Your task to perform on an android device: turn off data saver in the chrome app Image 0: 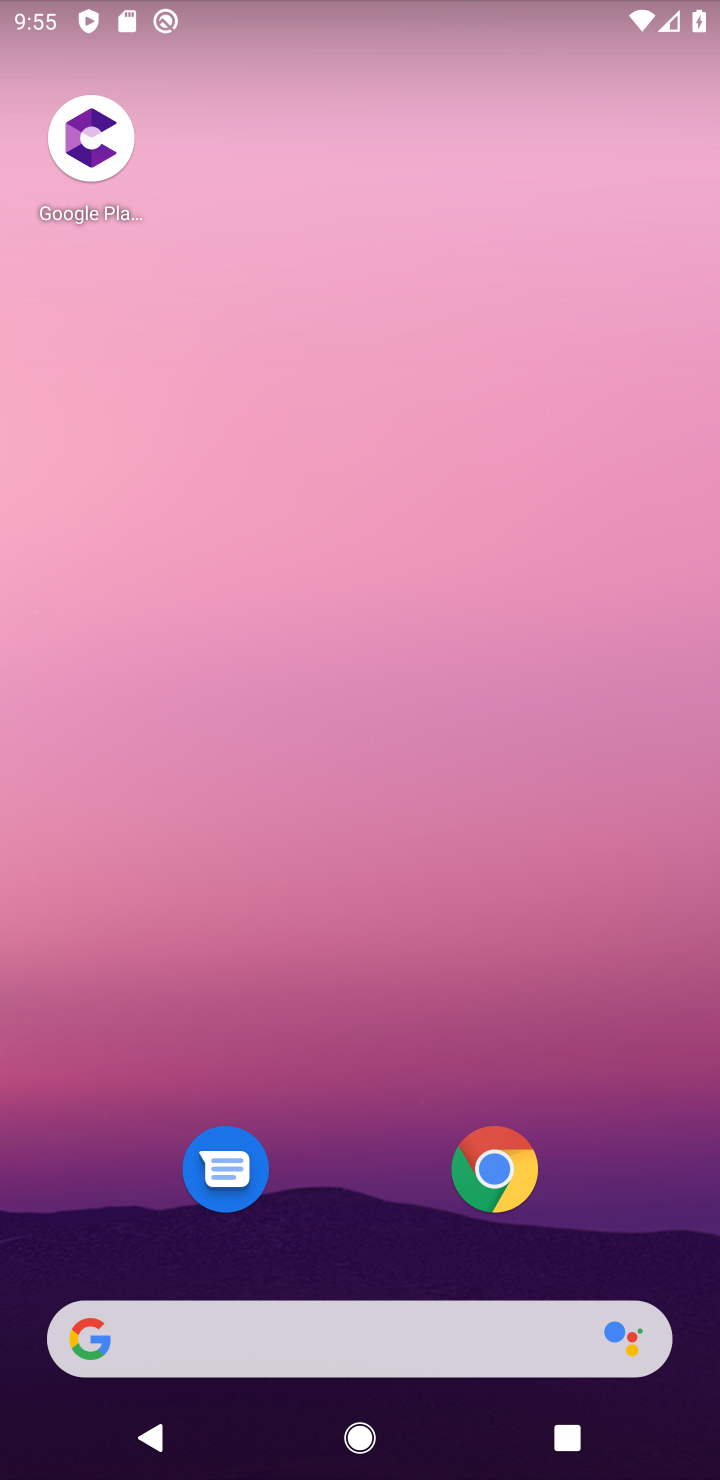
Step 0: click (494, 1167)
Your task to perform on an android device: turn off data saver in the chrome app Image 1: 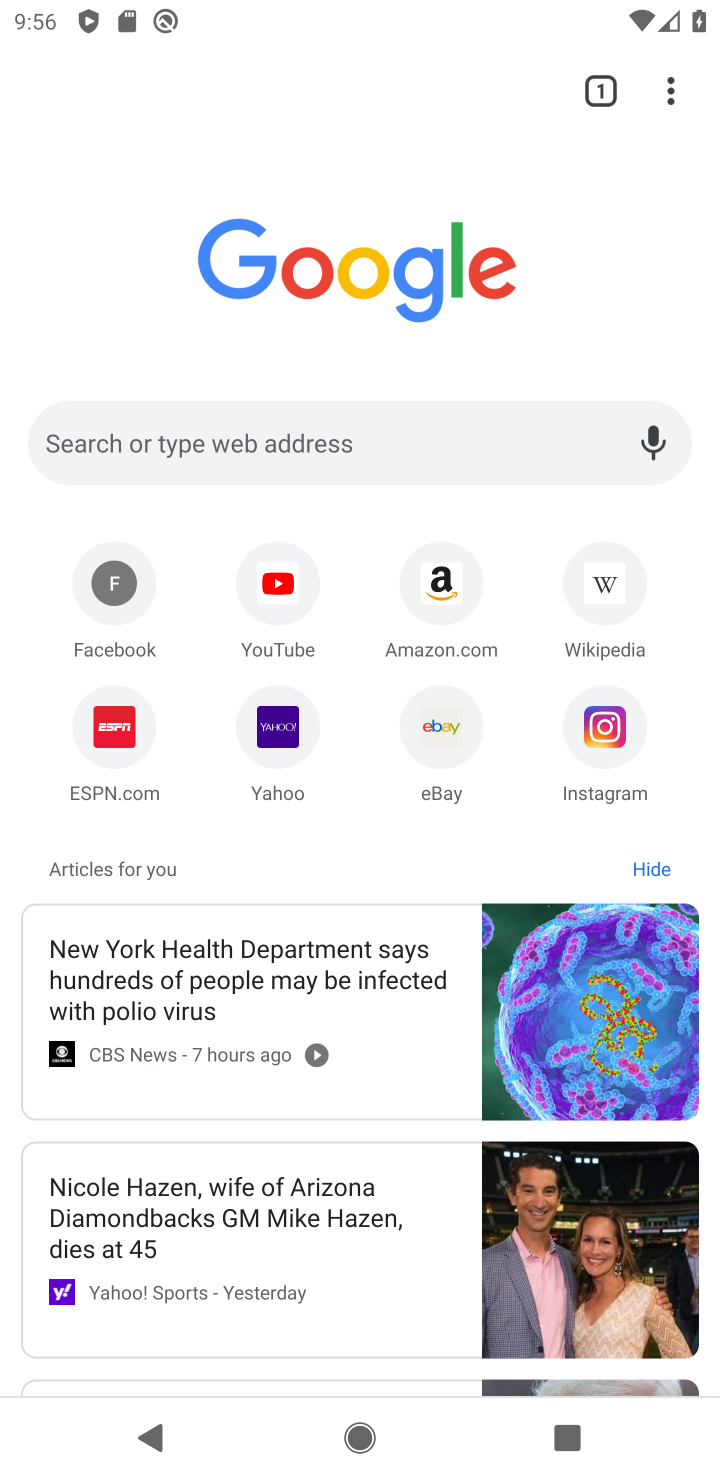
Step 1: click (664, 101)
Your task to perform on an android device: turn off data saver in the chrome app Image 2: 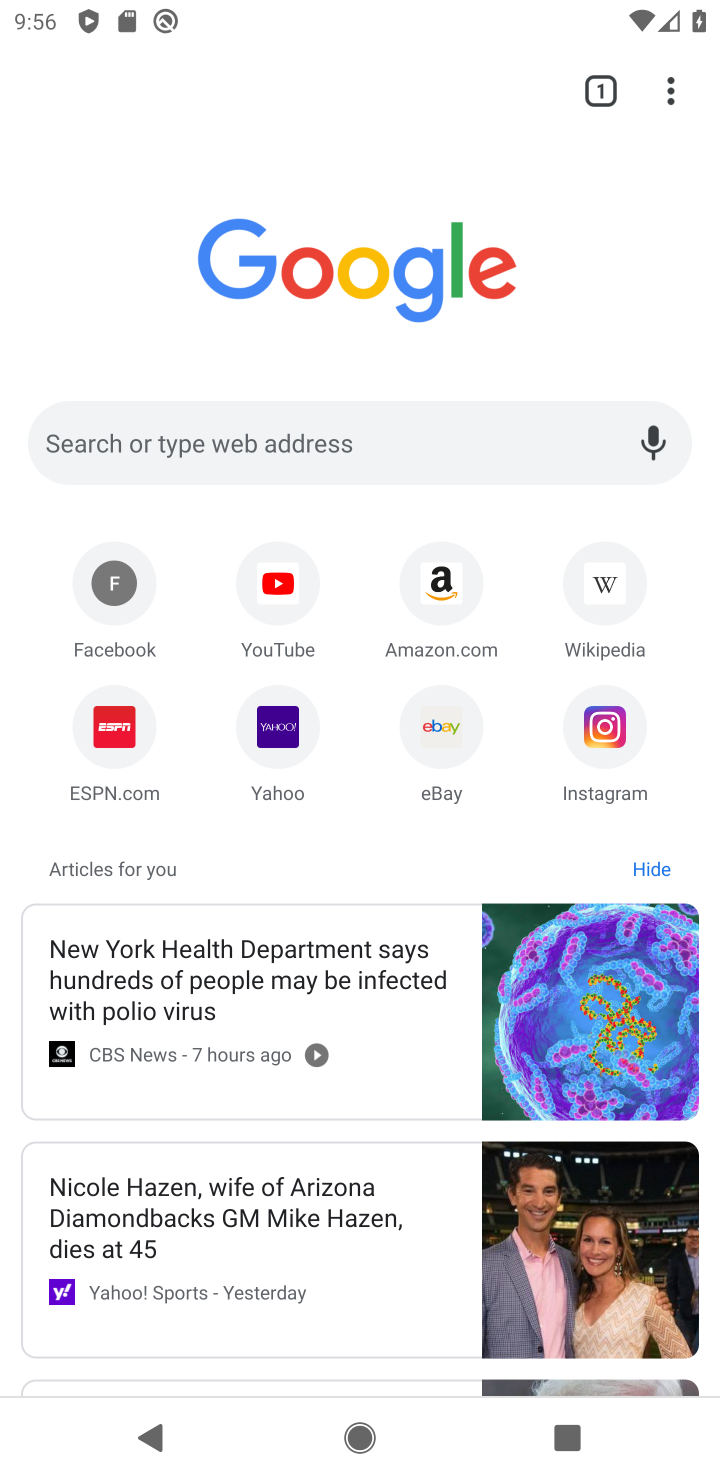
Step 2: click (659, 98)
Your task to perform on an android device: turn off data saver in the chrome app Image 3: 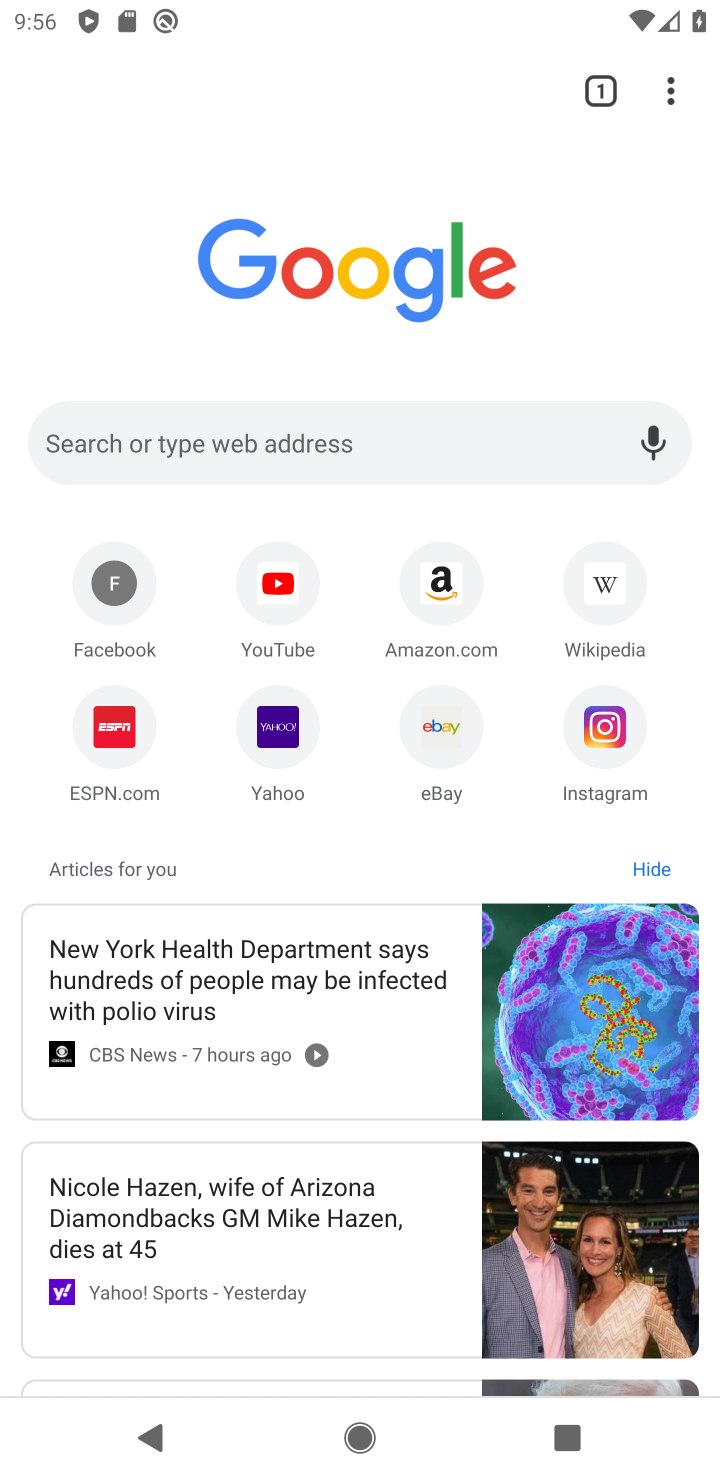
Step 3: click (661, 105)
Your task to perform on an android device: turn off data saver in the chrome app Image 4: 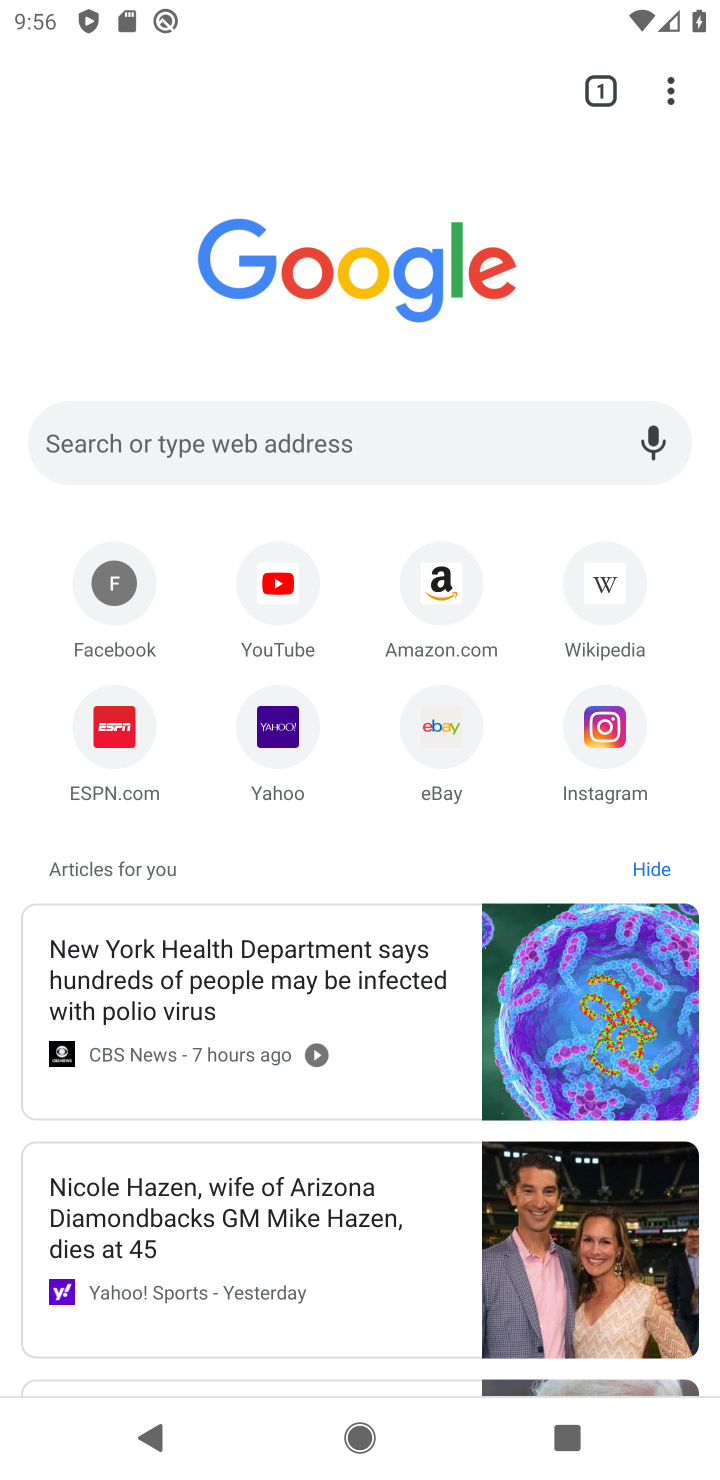
Step 4: click (662, 101)
Your task to perform on an android device: turn off data saver in the chrome app Image 5: 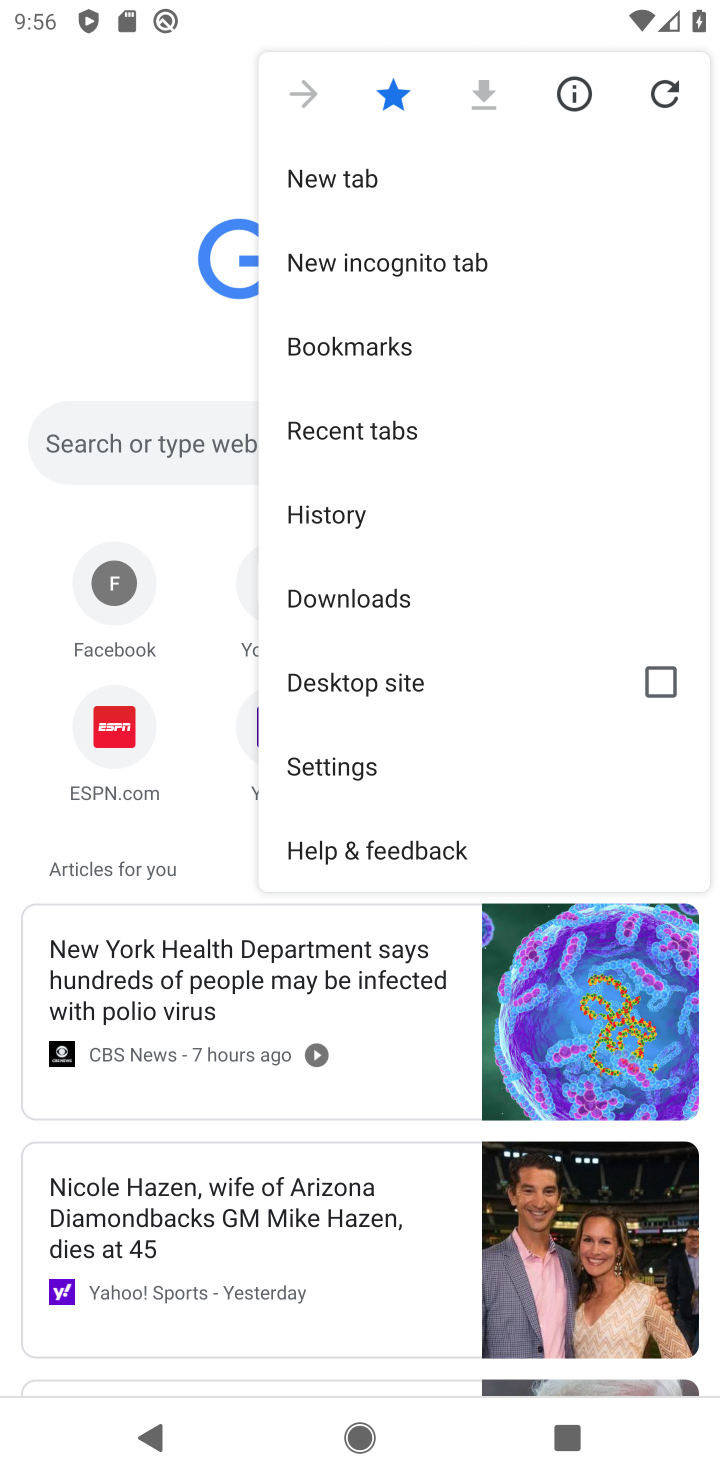
Step 5: click (346, 764)
Your task to perform on an android device: turn off data saver in the chrome app Image 6: 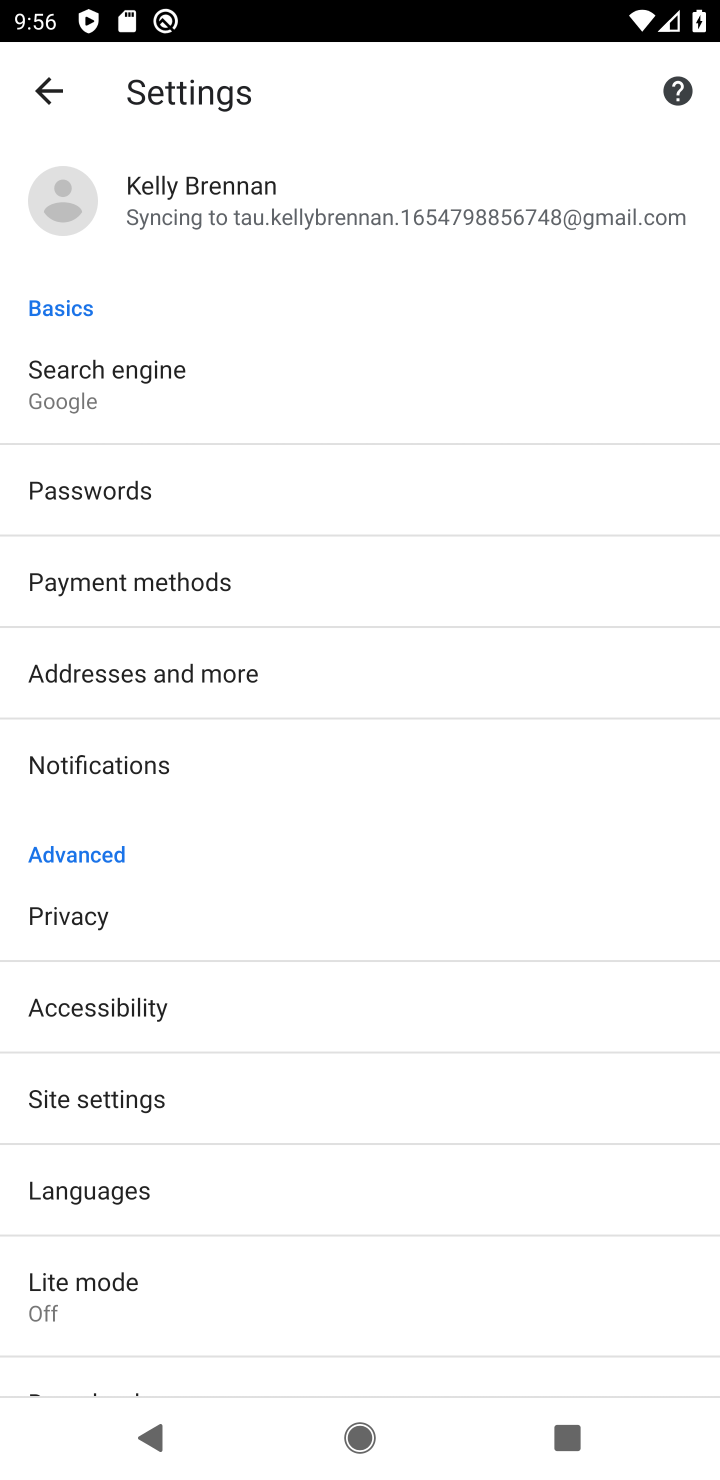
Step 6: click (100, 1261)
Your task to perform on an android device: turn off data saver in the chrome app Image 7: 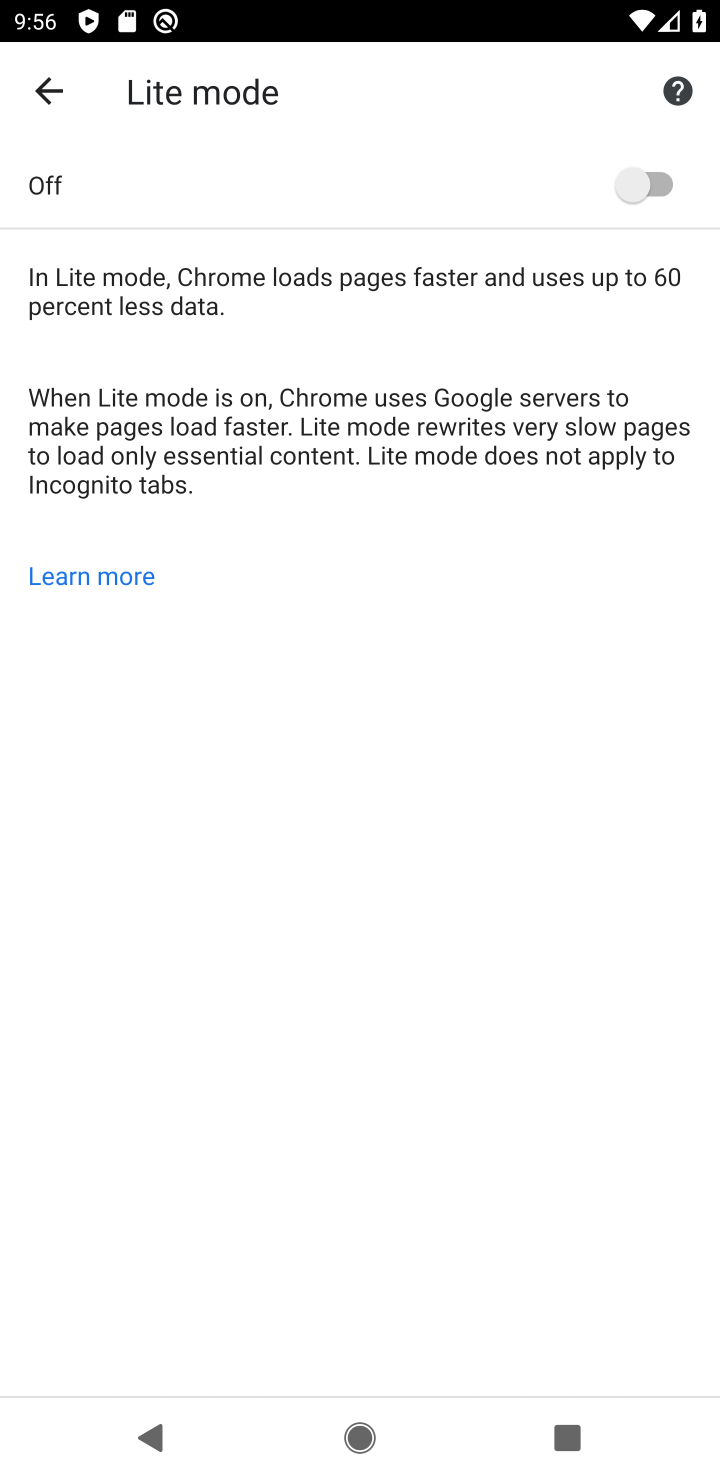
Step 7: task complete